Your task to perform on an android device: change the clock display to analog Image 0: 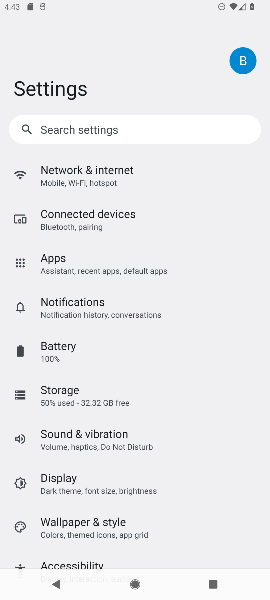
Step 0: press home button
Your task to perform on an android device: change the clock display to analog Image 1: 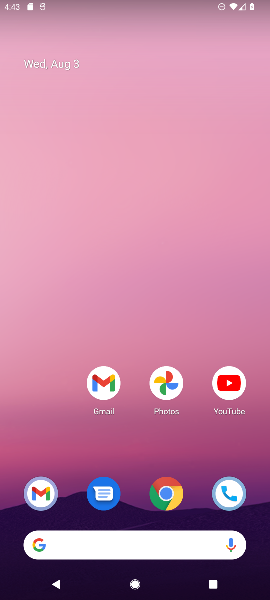
Step 1: drag from (64, 456) to (80, 170)
Your task to perform on an android device: change the clock display to analog Image 2: 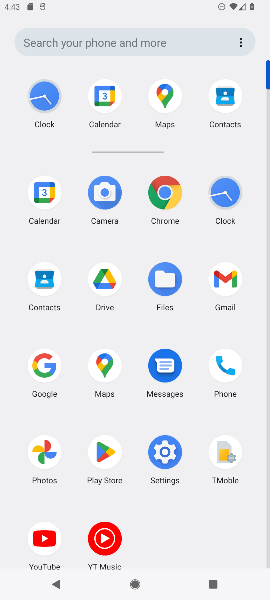
Step 2: click (231, 198)
Your task to perform on an android device: change the clock display to analog Image 3: 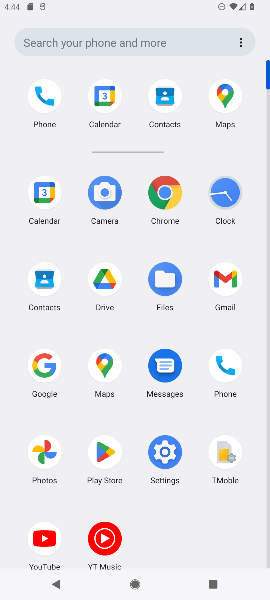
Step 3: click (227, 194)
Your task to perform on an android device: change the clock display to analog Image 4: 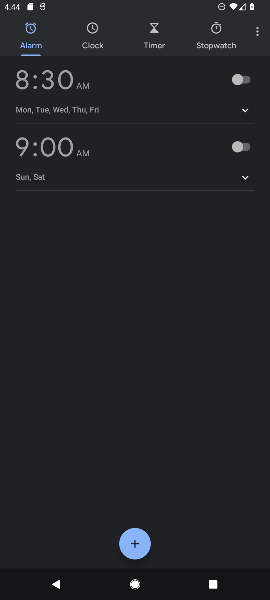
Step 4: click (258, 35)
Your task to perform on an android device: change the clock display to analog Image 5: 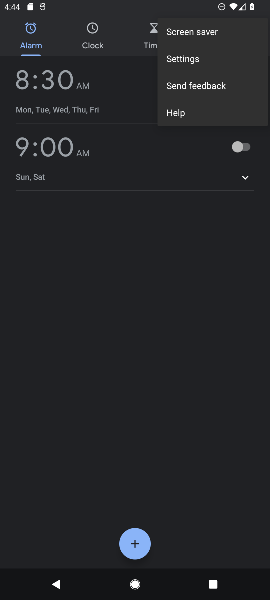
Step 5: click (200, 62)
Your task to perform on an android device: change the clock display to analog Image 6: 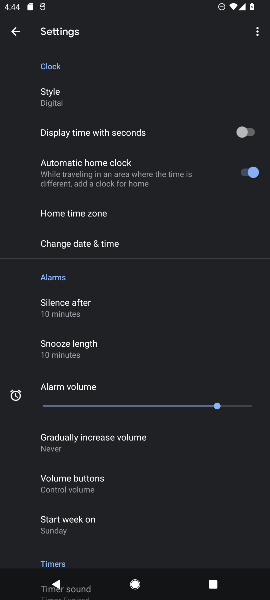
Step 6: drag from (200, 301) to (200, 239)
Your task to perform on an android device: change the clock display to analog Image 7: 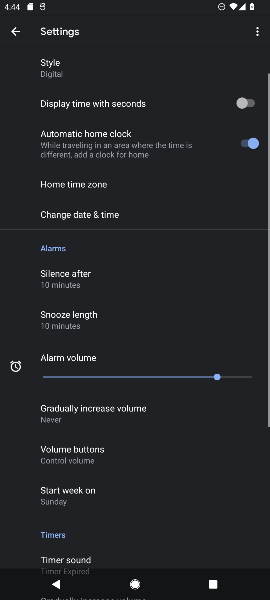
Step 7: drag from (185, 356) to (192, 253)
Your task to perform on an android device: change the clock display to analog Image 8: 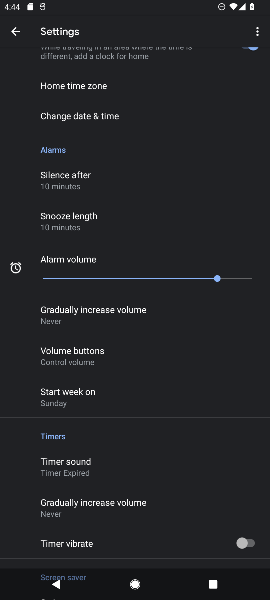
Step 8: drag from (181, 359) to (176, 285)
Your task to perform on an android device: change the clock display to analog Image 9: 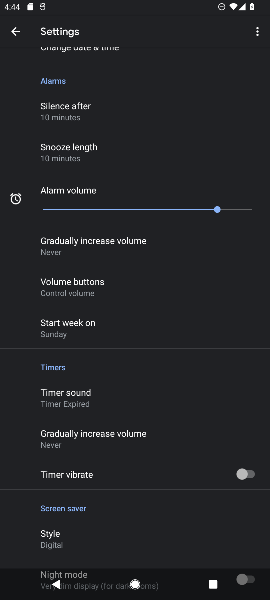
Step 9: drag from (182, 404) to (180, 292)
Your task to perform on an android device: change the clock display to analog Image 10: 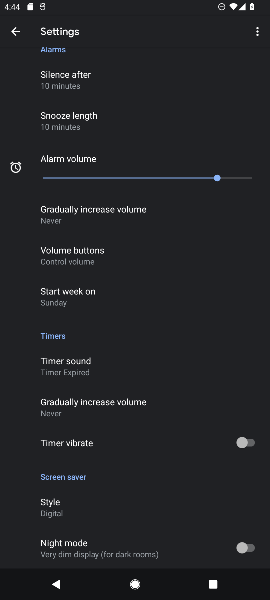
Step 10: drag from (205, 224) to (199, 311)
Your task to perform on an android device: change the clock display to analog Image 11: 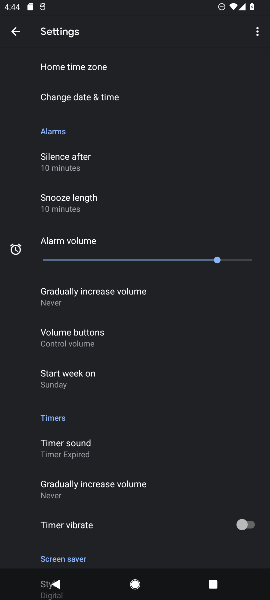
Step 11: drag from (194, 216) to (193, 300)
Your task to perform on an android device: change the clock display to analog Image 12: 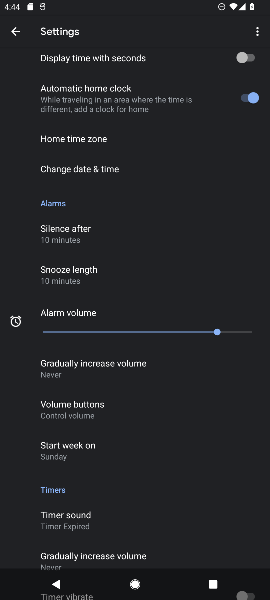
Step 12: drag from (194, 175) to (192, 277)
Your task to perform on an android device: change the clock display to analog Image 13: 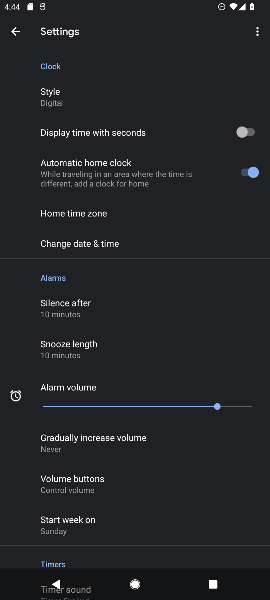
Step 13: drag from (197, 132) to (203, 249)
Your task to perform on an android device: change the clock display to analog Image 14: 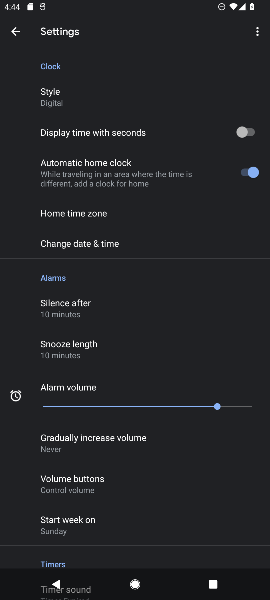
Step 14: click (54, 100)
Your task to perform on an android device: change the clock display to analog Image 15: 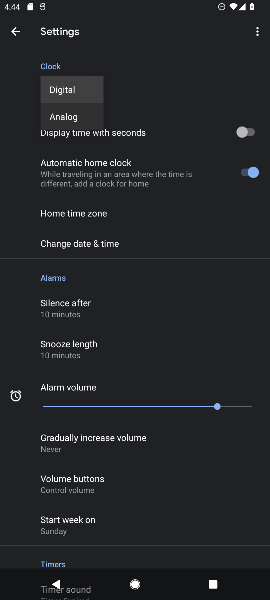
Step 15: click (72, 120)
Your task to perform on an android device: change the clock display to analog Image 16: 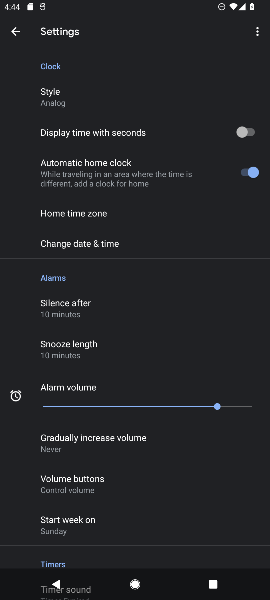
Step 16: task complete